Your task to perform on an android device: Clear the shopping cart on costco.com. Search for "razer blade" on costco.com, select the first entry, and add it to the cart. Image 0: 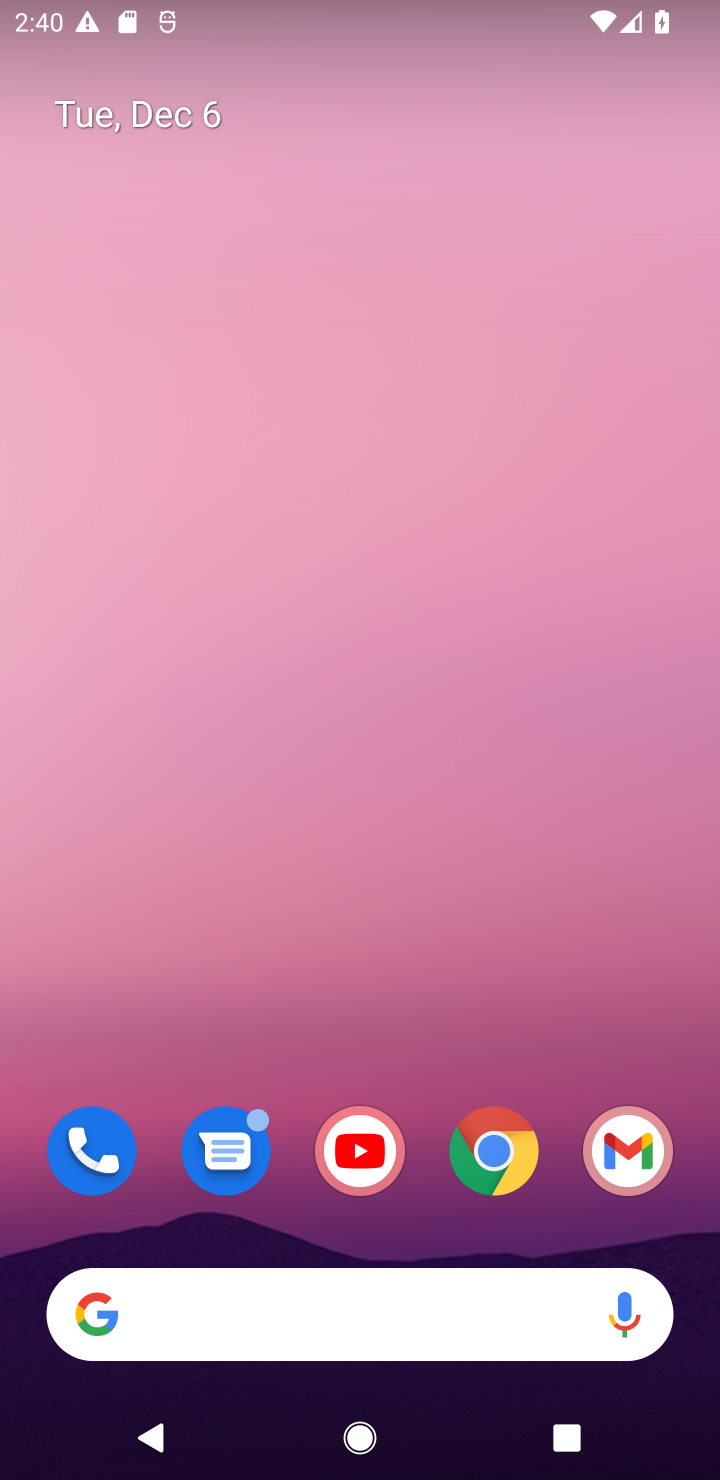
Step 0: click (496, 1165)
Your task to perform on an android device: Clear the shopping cart on costco.com. Search for "razer blade" on costco.com, select the first entry, and add it to the cart. Image 1: 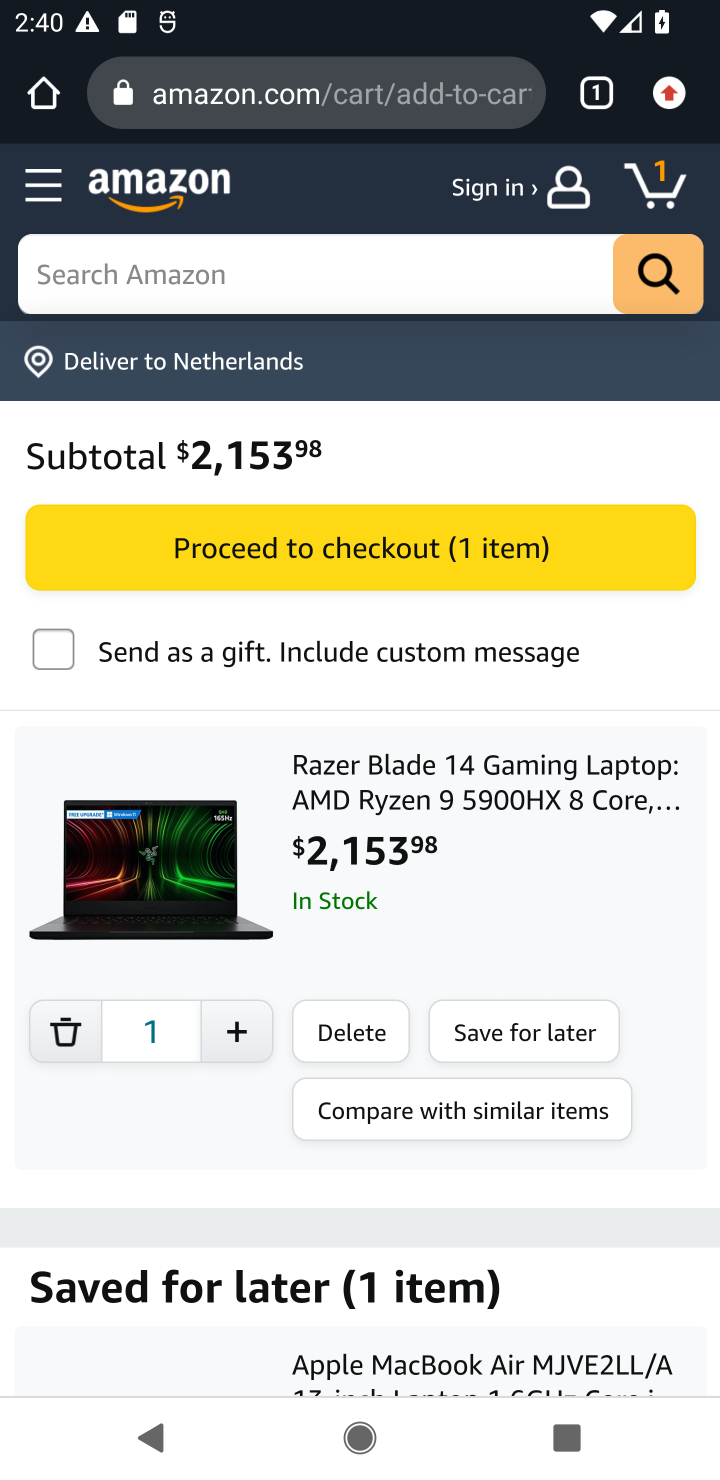
Step 1: click (335, 101)
Your task to perform on an android device: Clear the shopping cart on costco.com. Search for "razer blade" on costco.com, select the first entry, and add it to the cart. Image 2: 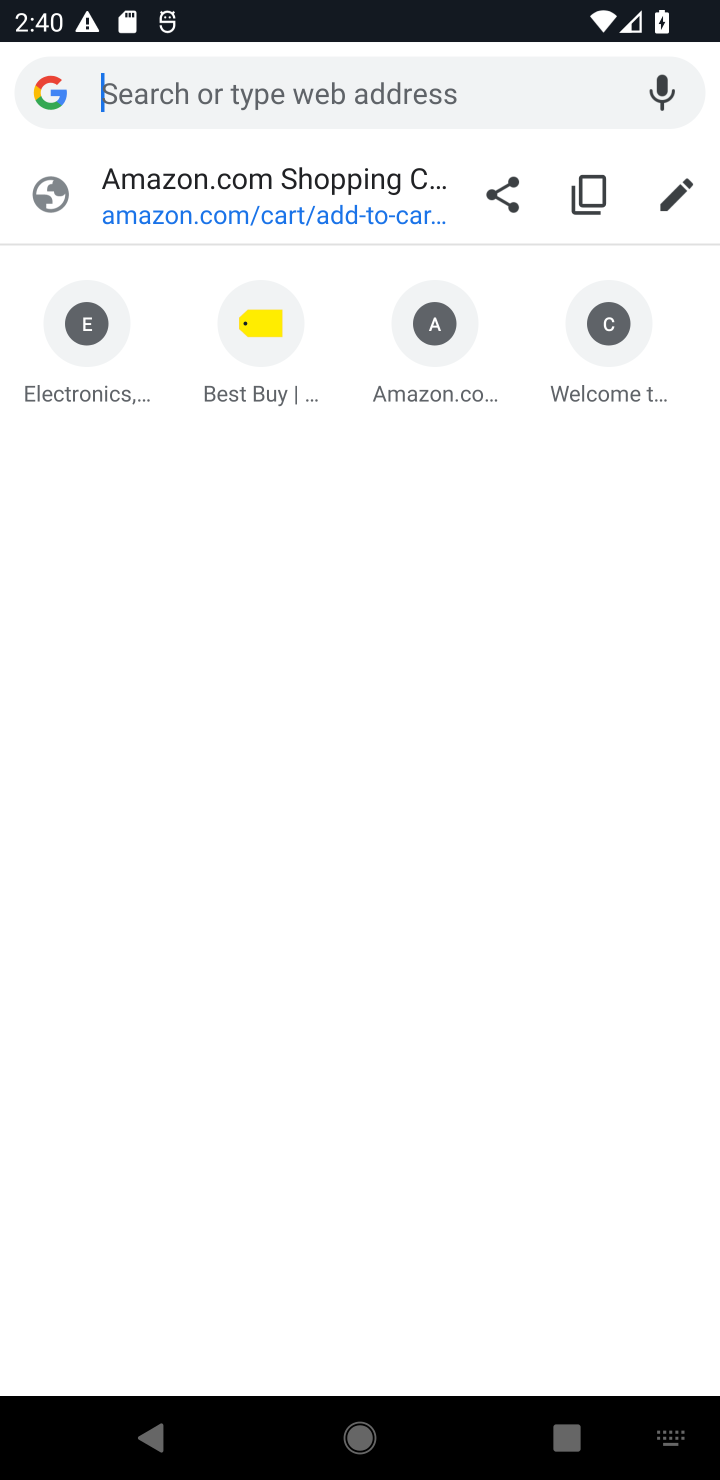
Step 2: type "costco.com"
Your task to perform on an android device: Clear the shopping cart on costco.com. Search for "razer blade" on costco.com, select the first entry, and add it to the cart. Image 3: 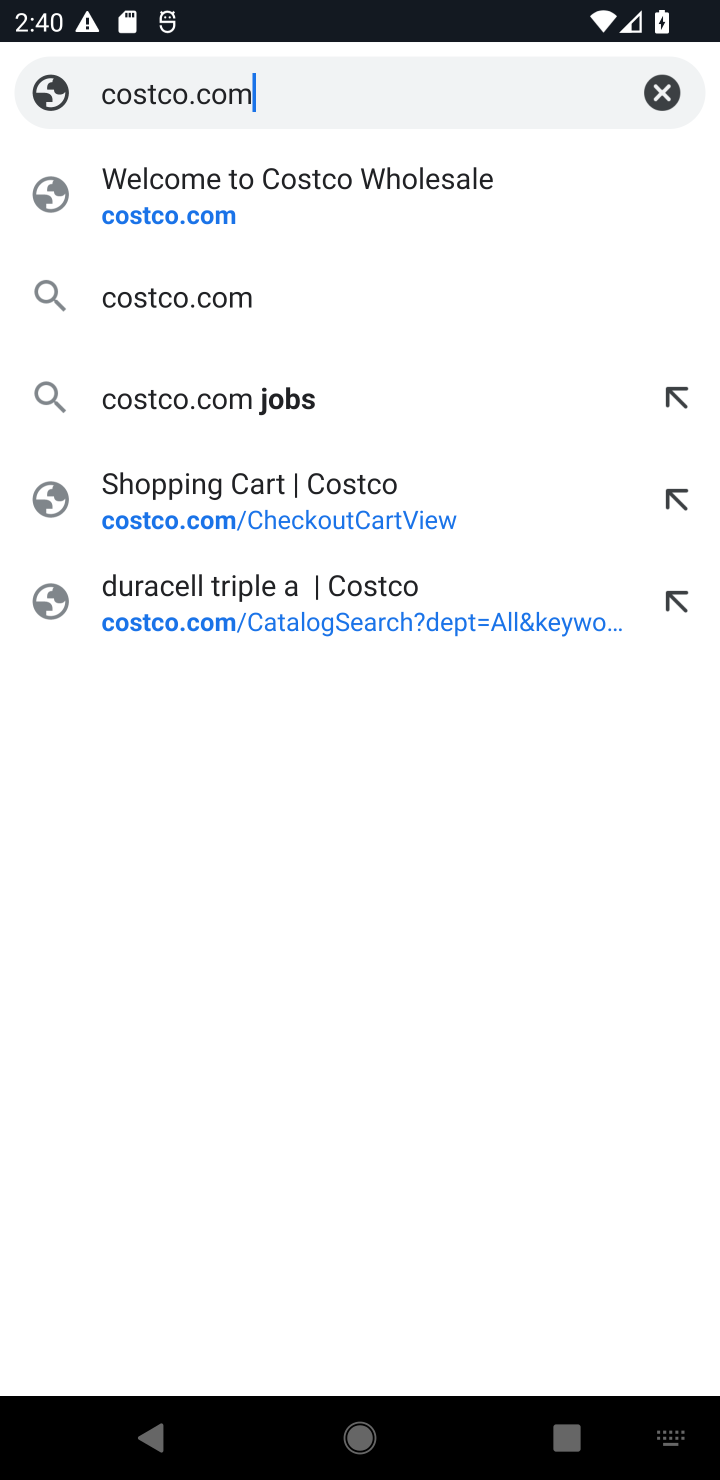
Step 3: click (206, 224)
Your task to perform on an android device: Clear the shopping cart on costco.com. Search for "razer blade" on costco.com, select the first entry, and add it to the cart. Image 4: 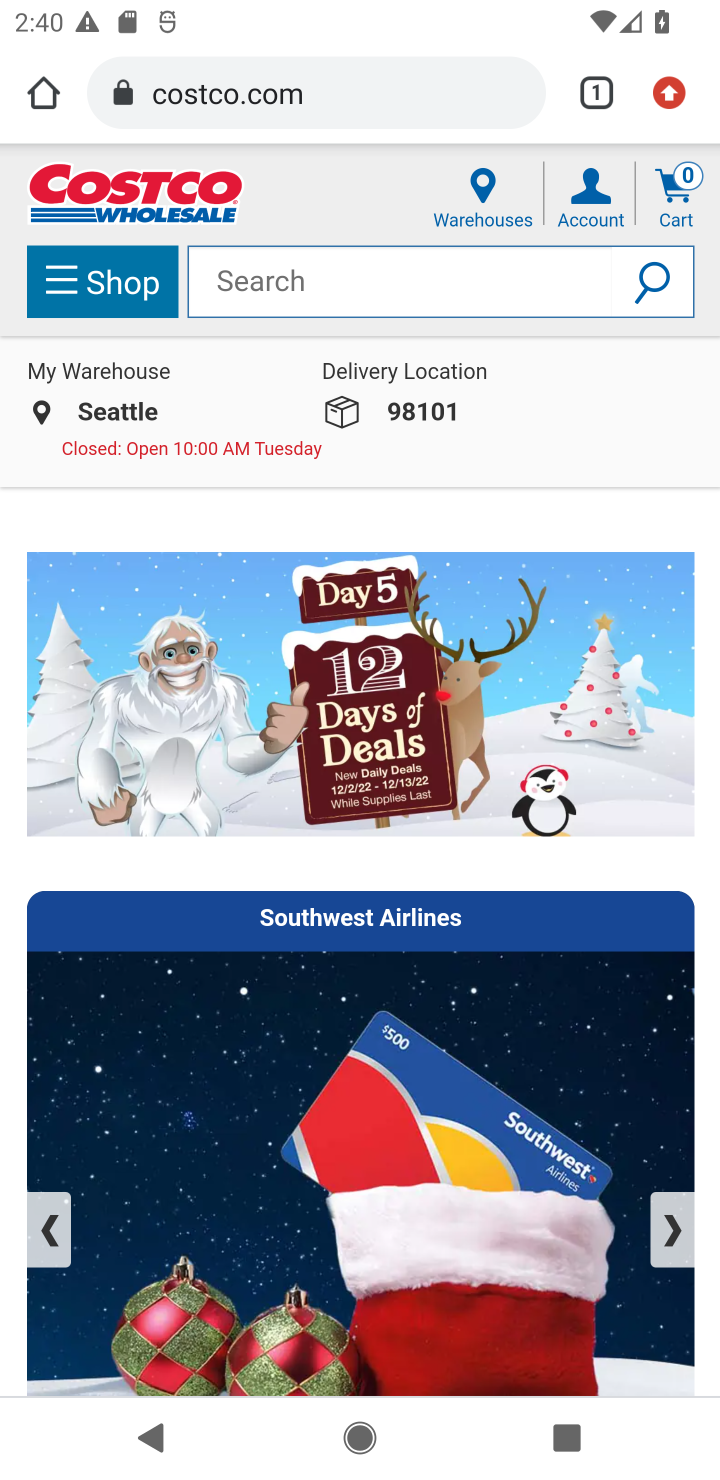
Step 4: click (674, 194)
Your task to perform on an android device: Clear the shopping cart on costco.com. Search for "razer blade" on costco.com, select the first entry, and add it to the cart. Image 5: 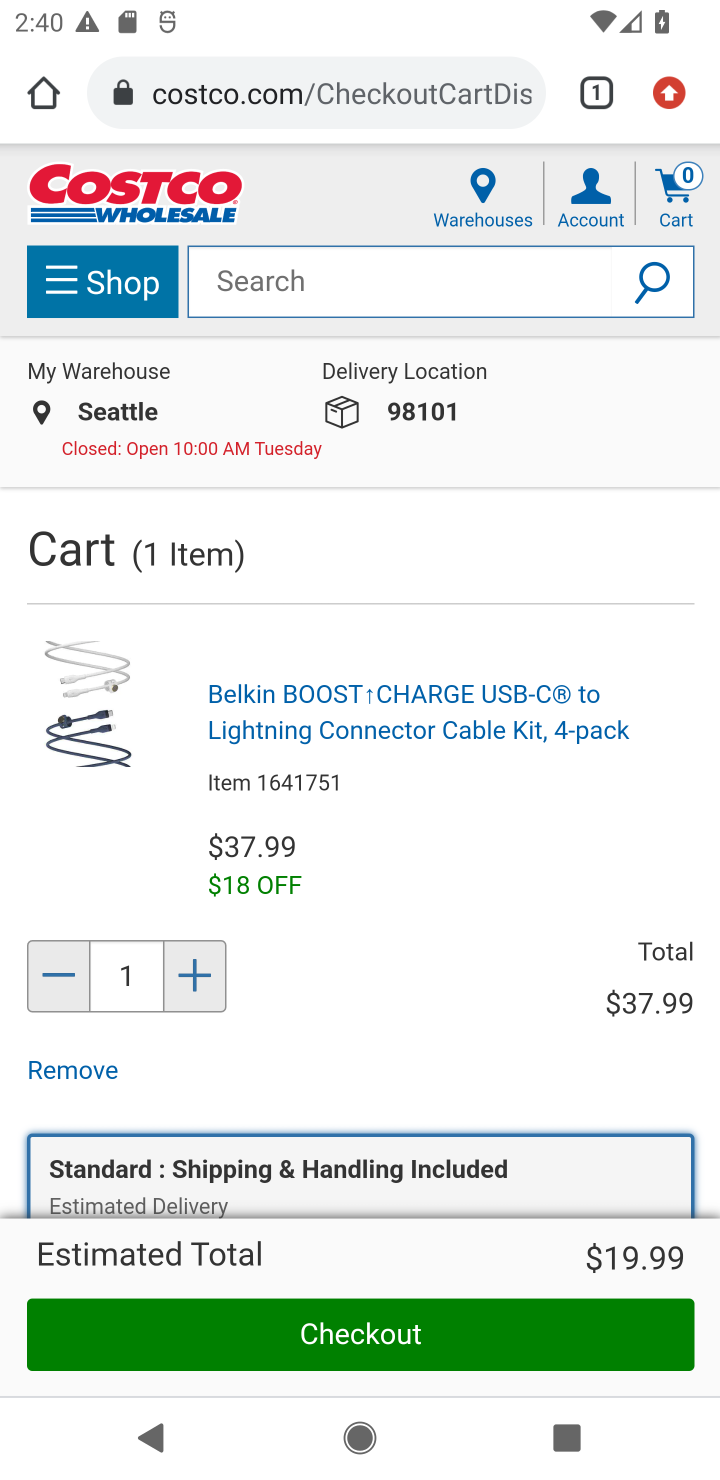
Step 5: drag from (307, 982) to (370, 351)
Your task to perform on an android device: Clear the shopping cart on costco.com. Search for "razer blade" on costco.com, select the first entry, and add it to the cart. Image 6: 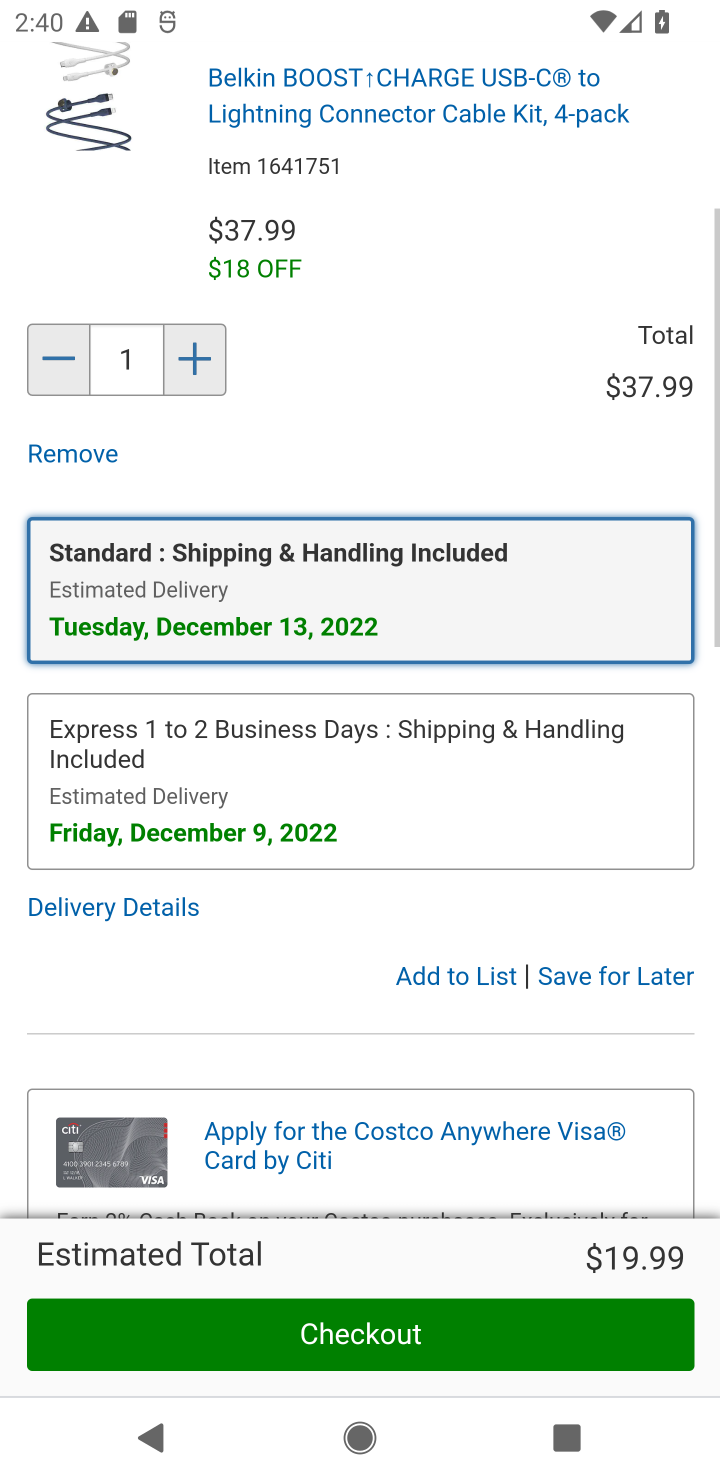
Step 6: drag from (436, 870) to (436, 607)
Your task to perform on an android device: Clear the shopping cart on costco.com. Search for "razer blade" on costco.com, select the first entry, and add it to the cart. Image 7: 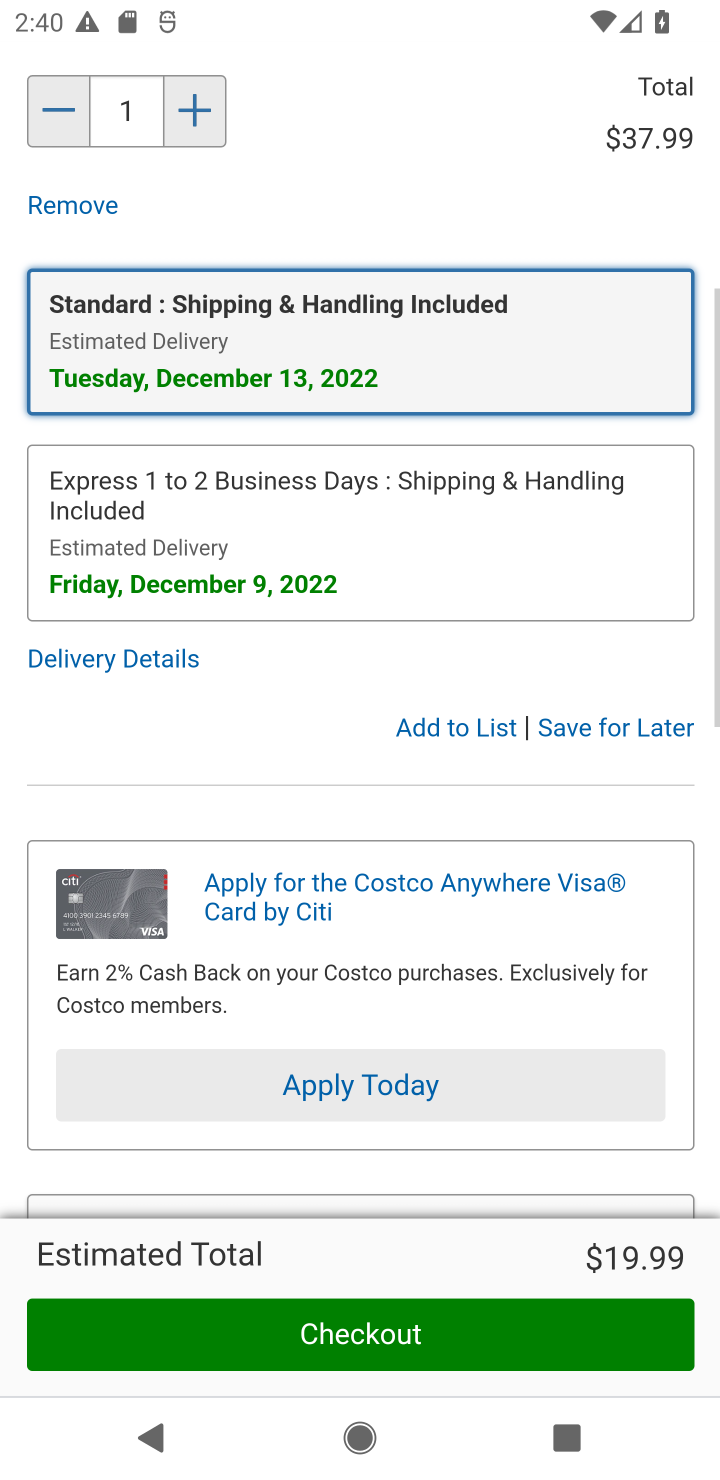
Step 7: click (566, 727)
Your task to perform on an android device: Clear the shopping cart on costco.com. Search for "razer blade" on costco.com, select the first entry, and add it to the cart. Image 8: 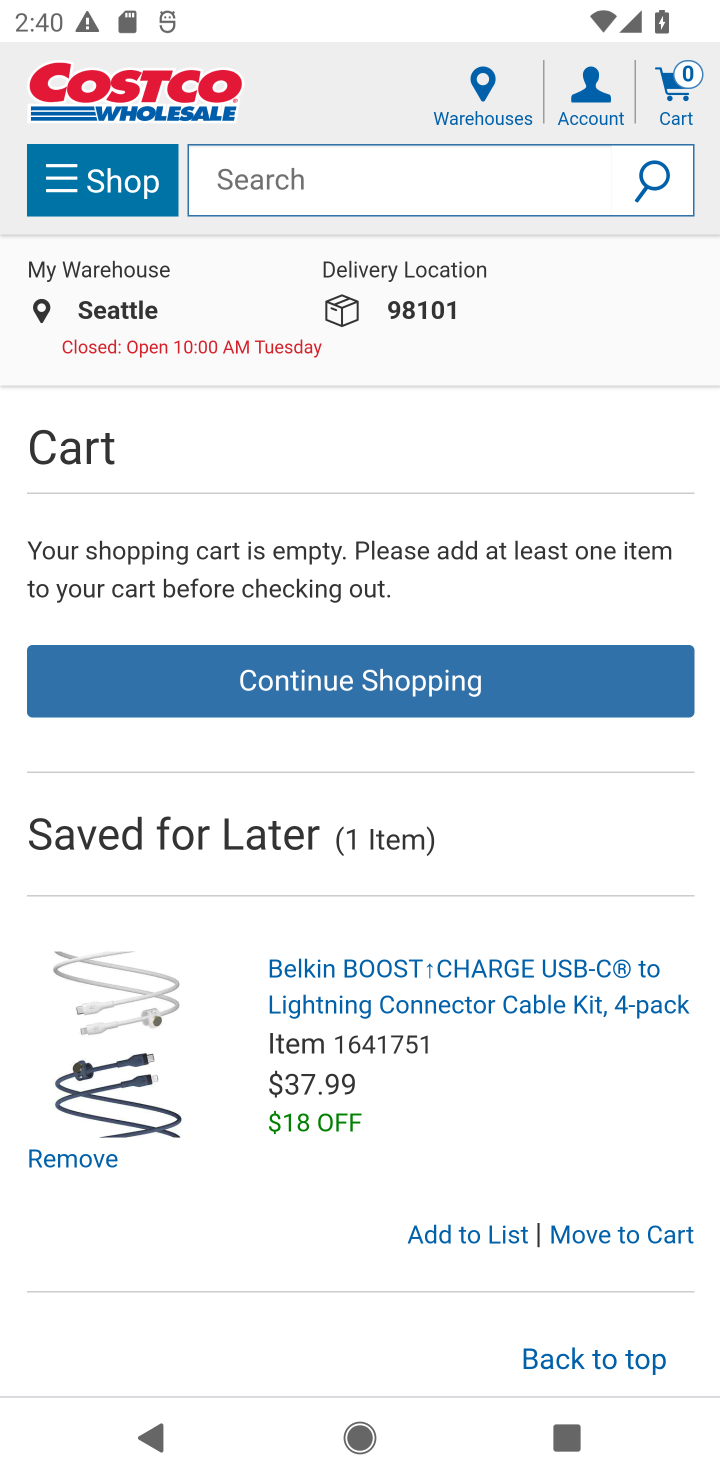
Step 8: click (305, 176)
Your task to perform on an android device: Clear the shopping cart on costco.com. Search for "razer blade" on costco.com, select the first entry, and add it to the cart. Image 9: 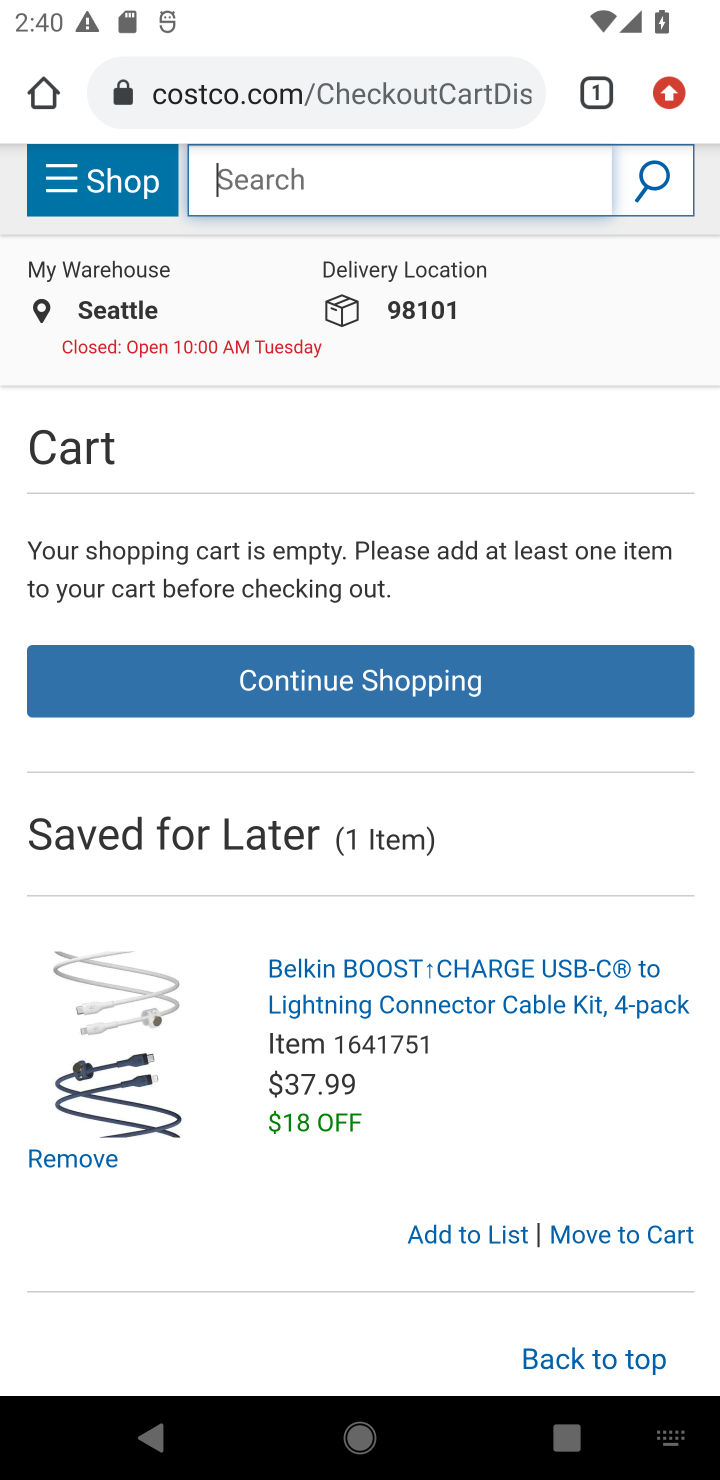
Step 9: type "razer blade"
Your task to perform on an android device: Clear the shopping cart on costco.com. Search for "razer blade" on costco.com, select the first entry, and add it to the cart. Image 10: 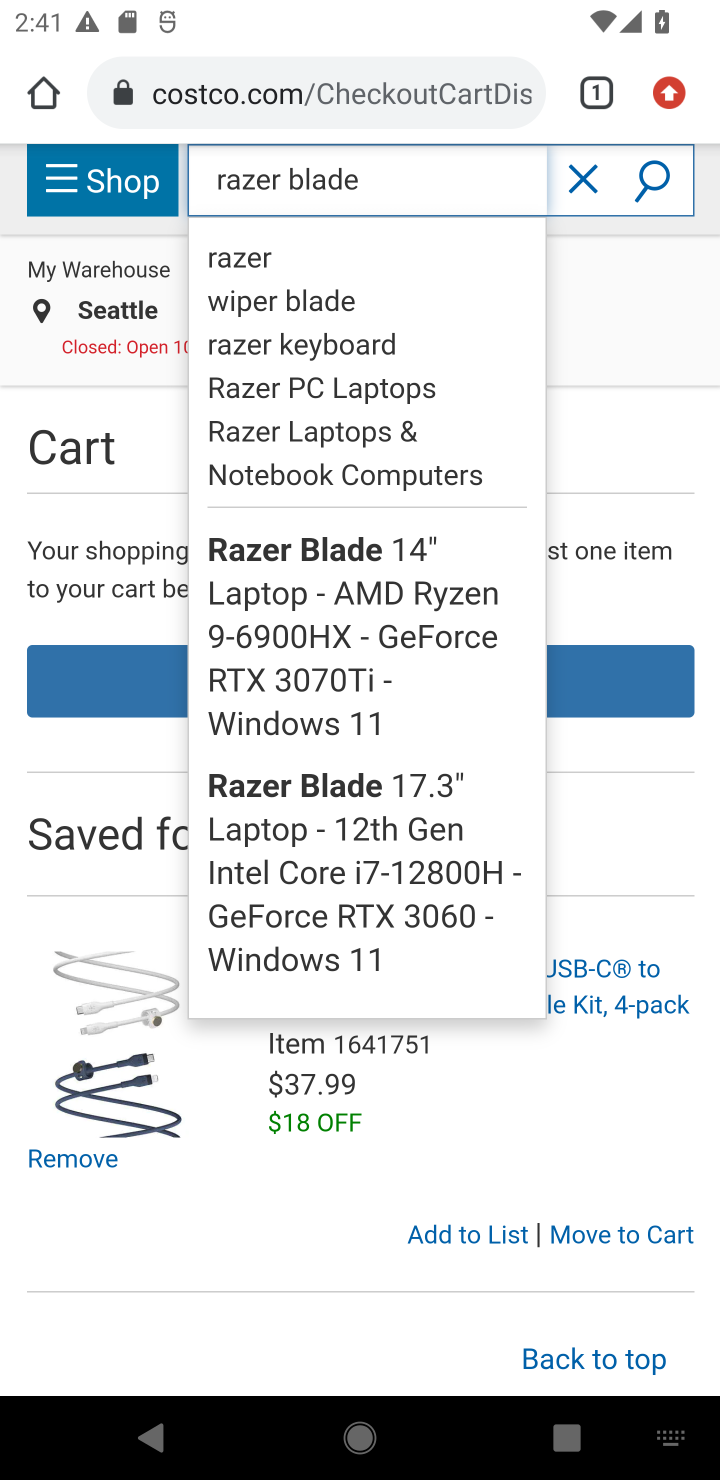
Step 10: click (656, 185)
Your task to perform on an android device: Clear the shopping cart on costco.com. Search for "razer blade" on costco.com, select the first entry, and add it to the cart. Image 11: 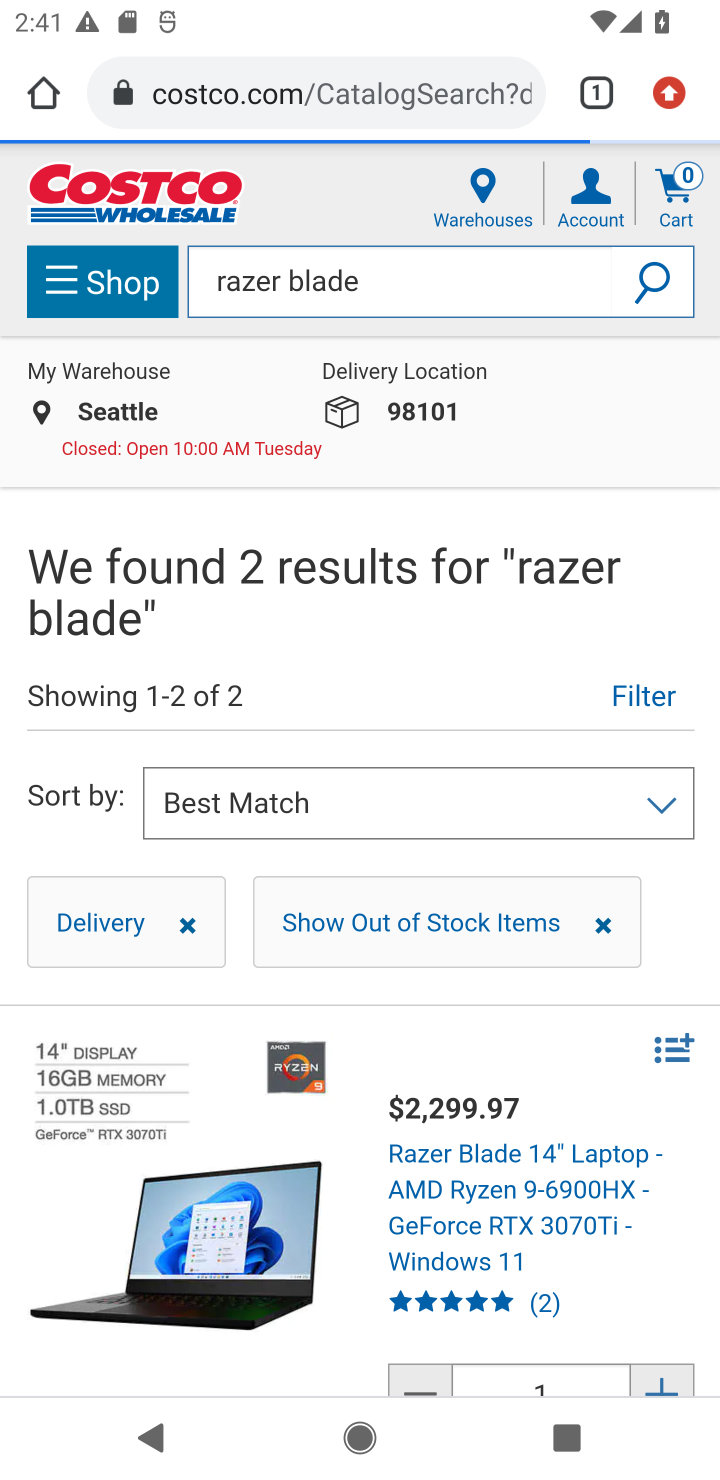
Step 11: drag from (318, 1009) to (332, 526)
Your task to perform on an android device: Clear the shopping cart on costco.com. Search for "razer blade" on costco.com, select the first entry, and add it to the cart. Image 12: 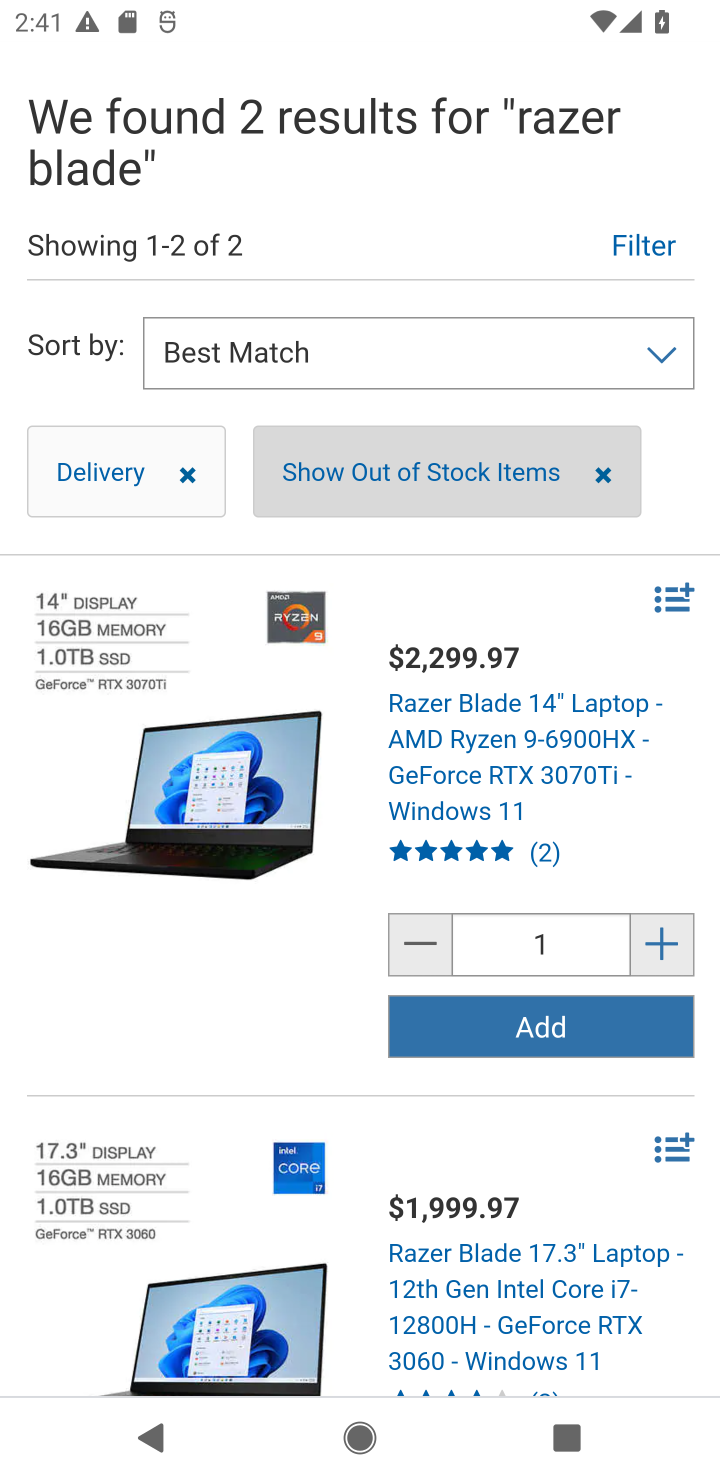
Step 12: click (508, 1030)
Your task to perform on an android device: Clear the shopping cart on costco.com. Search for "razer blade" on costco.com, select the first entry, and add it to the cart. Image 13: 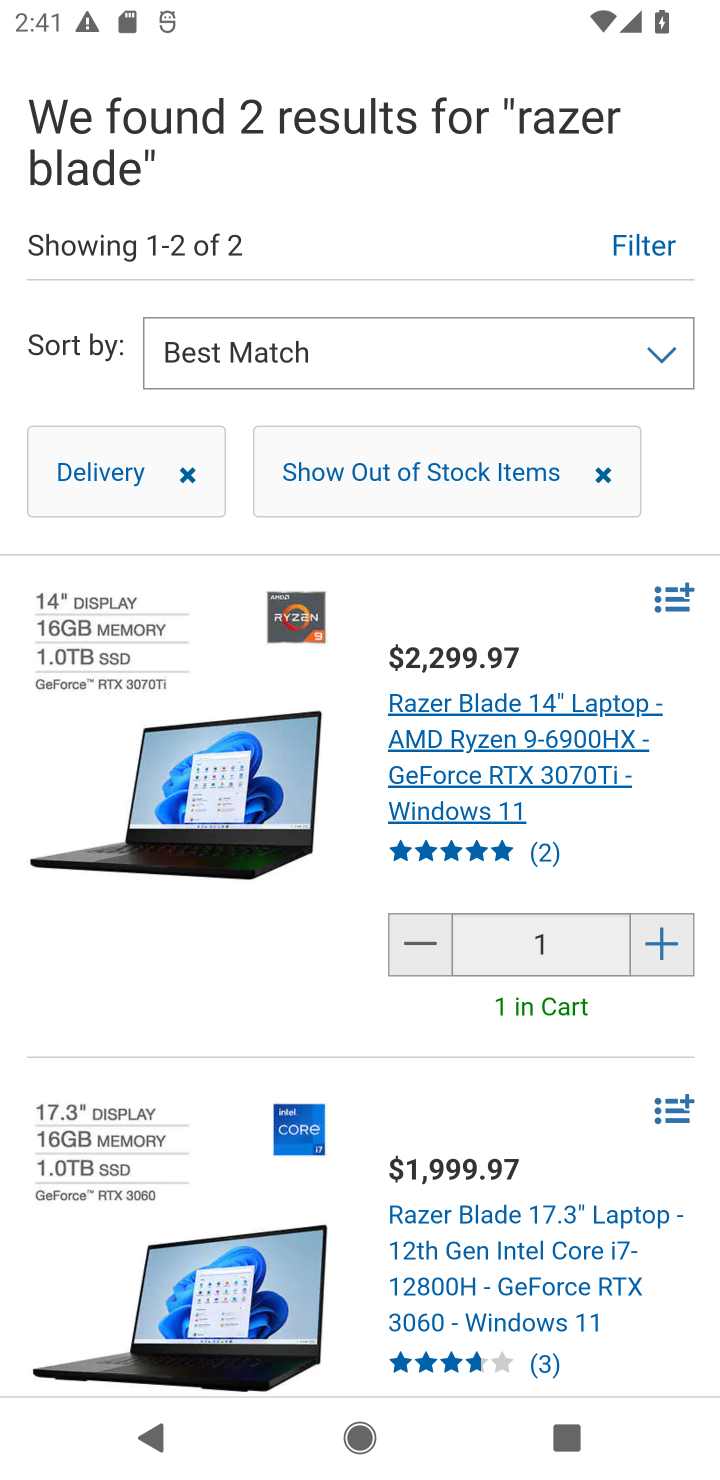
Step 13: task complete